Your task to perform on an android device: Is it going to rain today? Image 0: 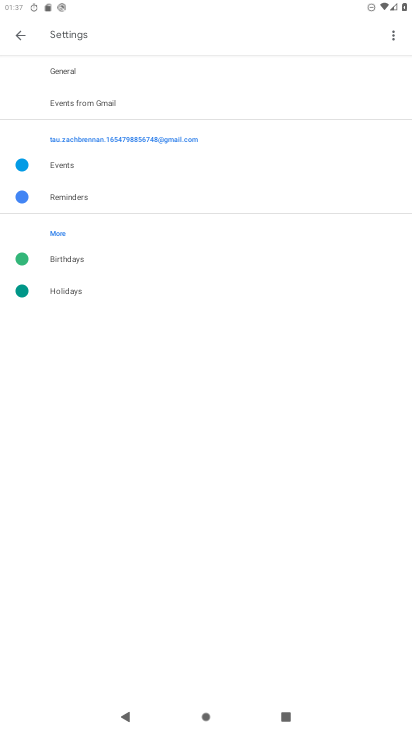
Step 0: press home button
Your task to perform on an android device: Is it going to rain today? Image 1: 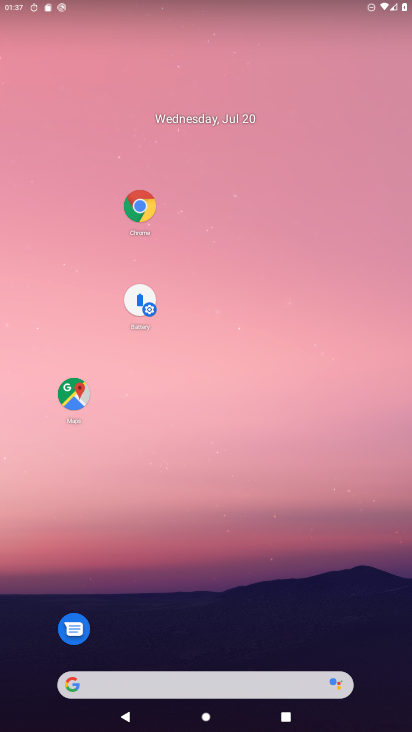
Step 1: drag from (197, 603) to (331, 67)
Your task to perform on an android device: Is it going to rain today? Image 2: 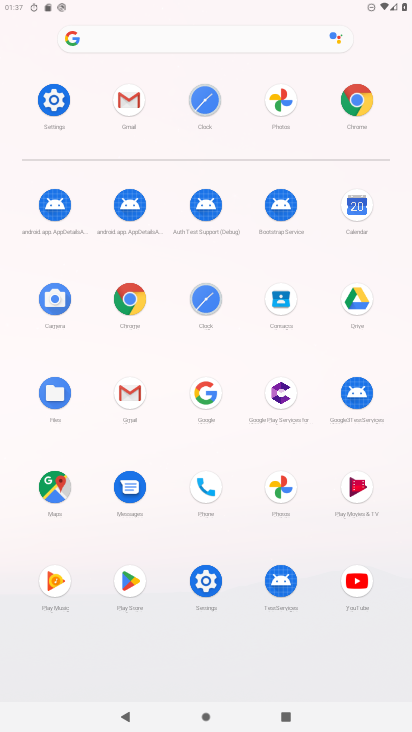
Step 2: click (229, 39)
Your task to perform on an android device: Is it going to rain today? Image 3: 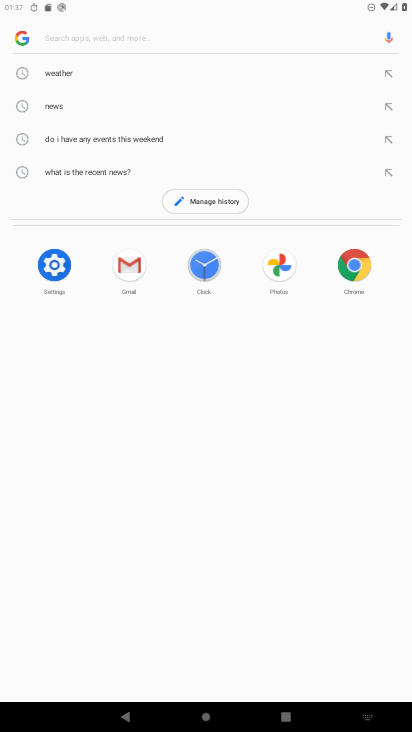
Step 3: type "Is it going to rain today?"
Your task to perform on an android device: Is it going to rain today? Image 4: 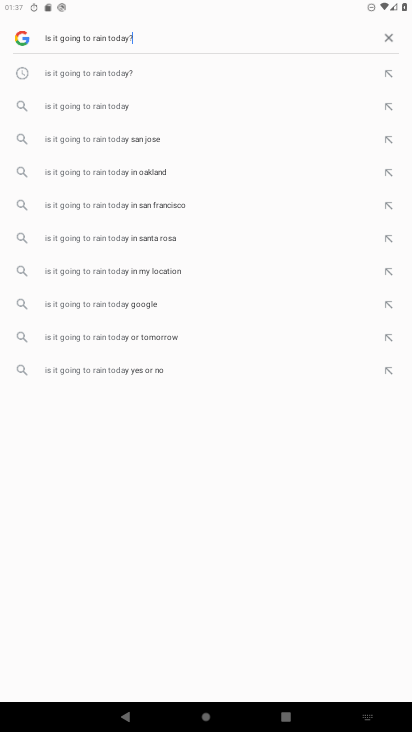
Step 4: type ""
Your task to perform on an android device: Is it going to rain today? Image 5: 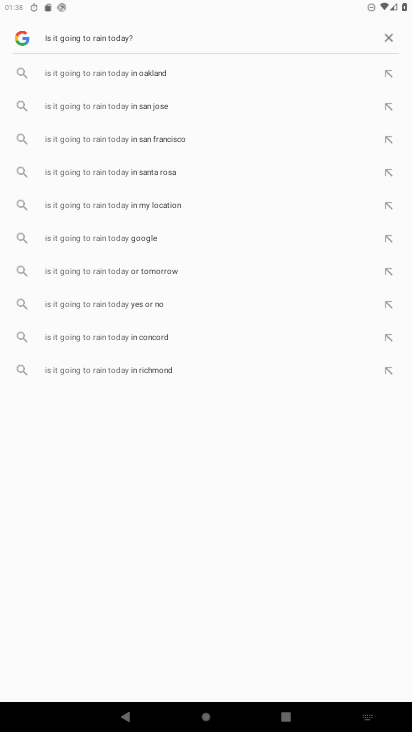
Step 5: click (149, 234)
Your task to perform on an android device: Is it going to rain today? Image 6: 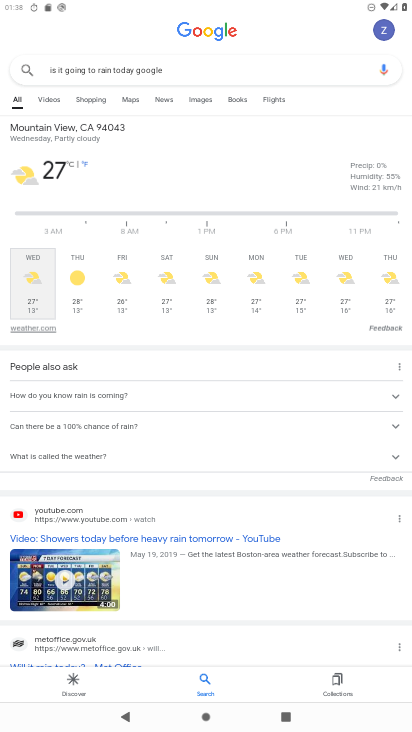
Step 6: task complete